Your task to perform on an android device: Search for seafood restaurants on Google Maps Image 0: 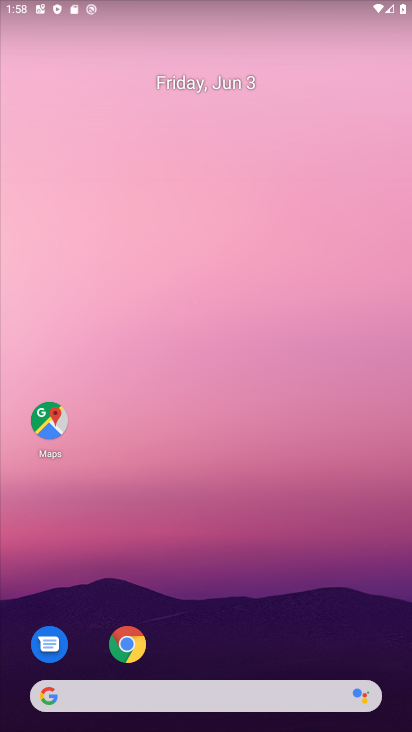
Step 0: click (51, 425)
Your task to perform on an android device: Search for seafood restaurants on Google Maps Image 1: 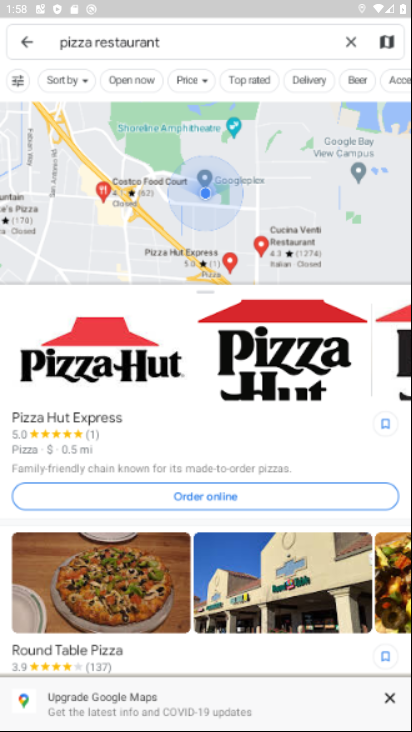
Step 1: click (345, 44)
Your task to perform on an android device: Search for seafood restaurants on Google Maps Image 2: 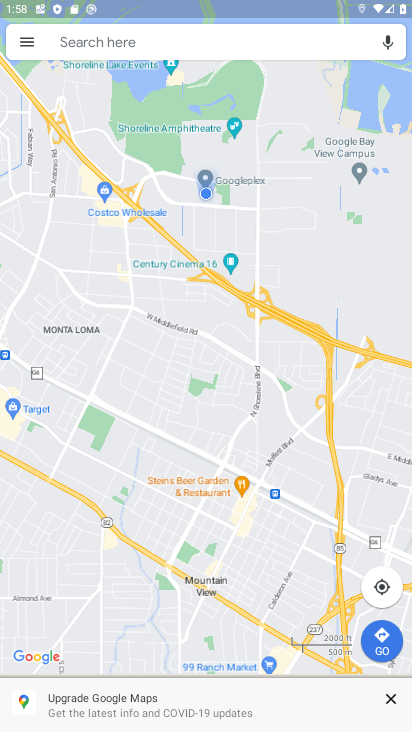
Step 2: click (297, 38)
Your task to perform on an android device: Search for seafood restaurants on Google Maps Image 3: 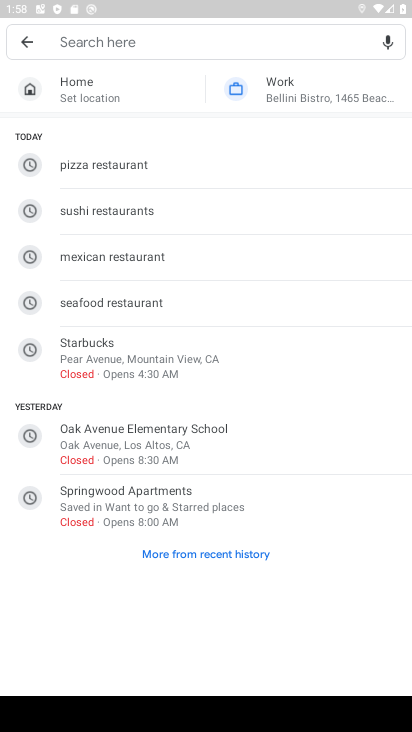
Step 3: click (207, 293)
Your task to perform on an android device: Search for seafood restaurants on Google Maps Image 4: 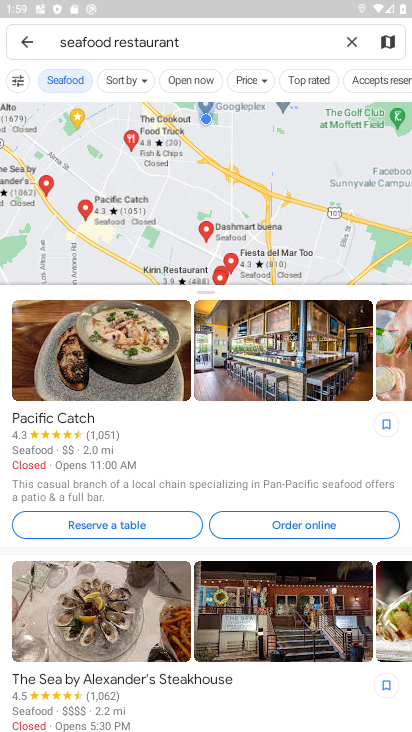
Step 4: task complete